Your task to perform on an android device: Open accessibility settings Image 0: 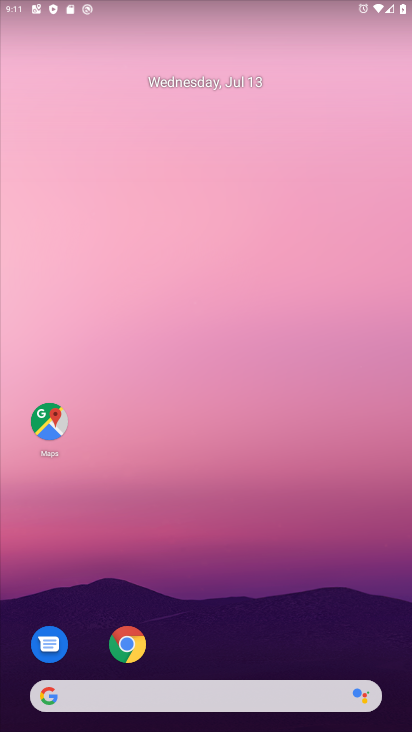
Step 0: drag from (223, 728) to (264, 99)
Your task to perform on an android device: Open accessibility settings Image 1: 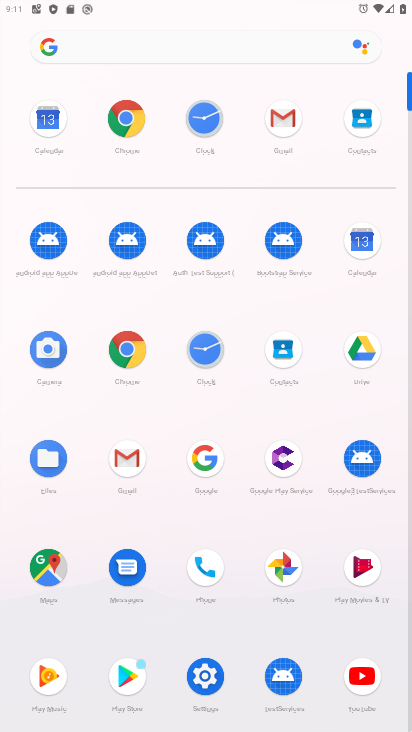
Step 1: click (205, 669)
Your task to perform on an android device: Open accessibility settings Image 2: 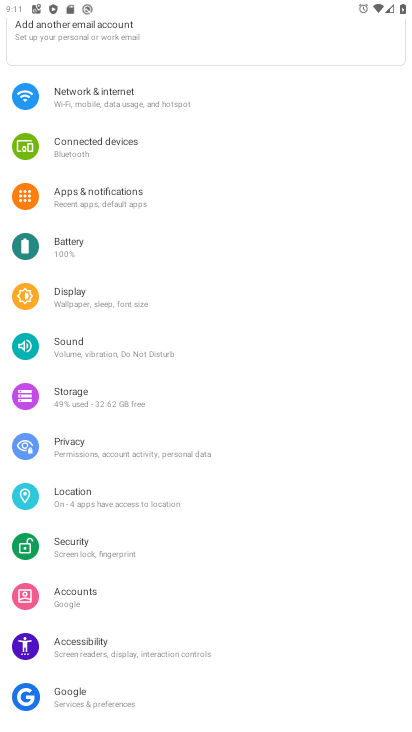
Step 2: click (91, 643)
Your task to perform on an android device: Open accessibility settings Image 3: 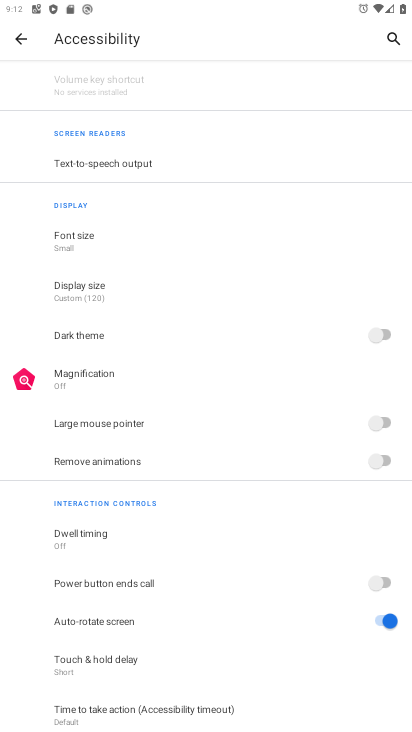
Step 3: task complete